Your task to perform on an android device: Go to Yahoo.com Image 0: 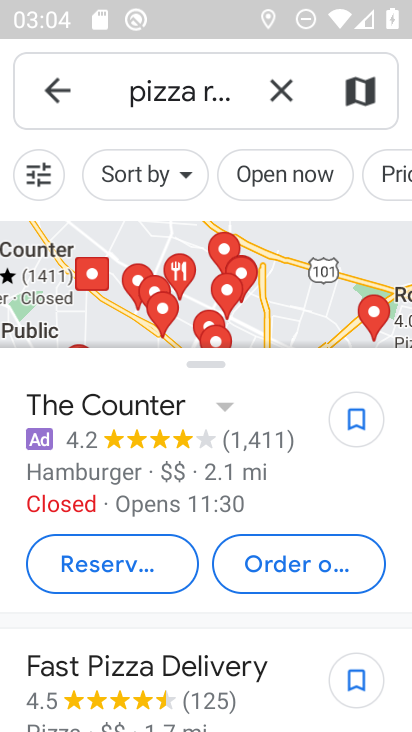
Step 0: press home button
Your task to perform on an android device: Go to Yahoo.com Image 1: 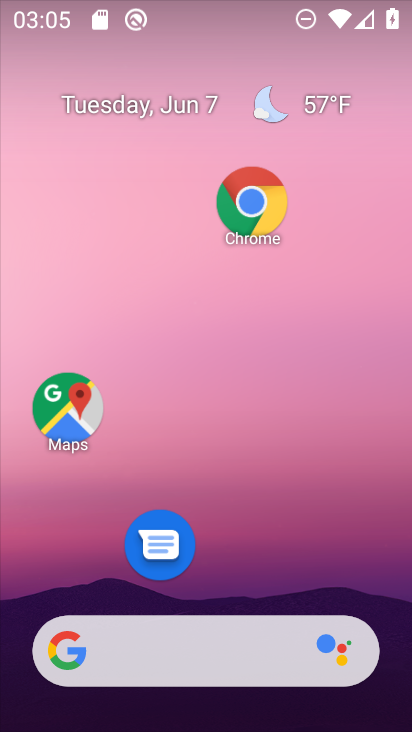
Step 1: click (234, 206)
Your task to perform on an android device: Go to Yahoo.com Image 2: 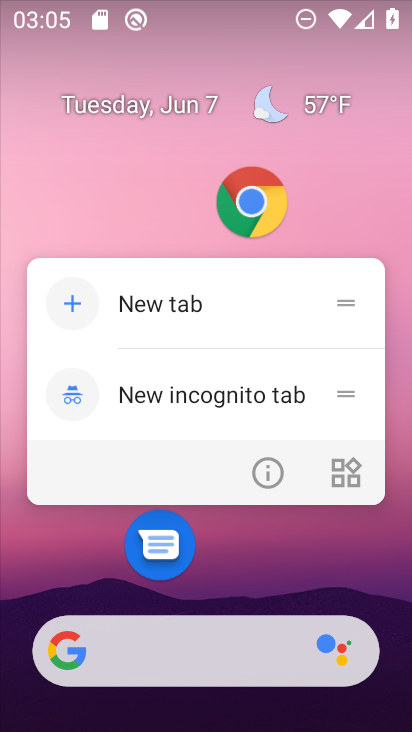
Step 2: click (274, 200)
Your task to perform on an android device: Go to Yahoo.com Image 3: 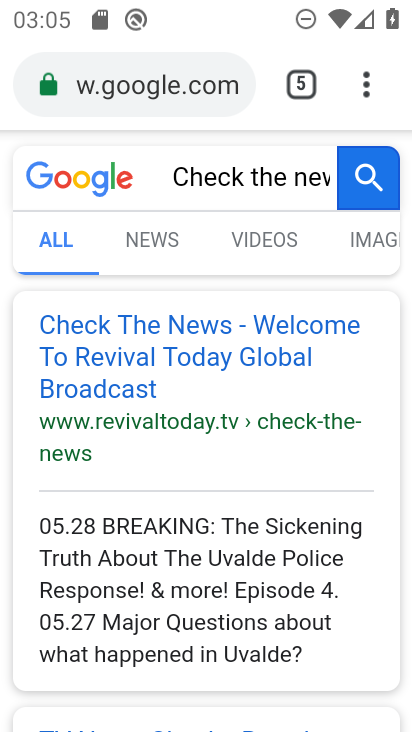
Step 3: click (367, 78)
Your task to perform on an android device: Go to Yahoo.com Image 4: 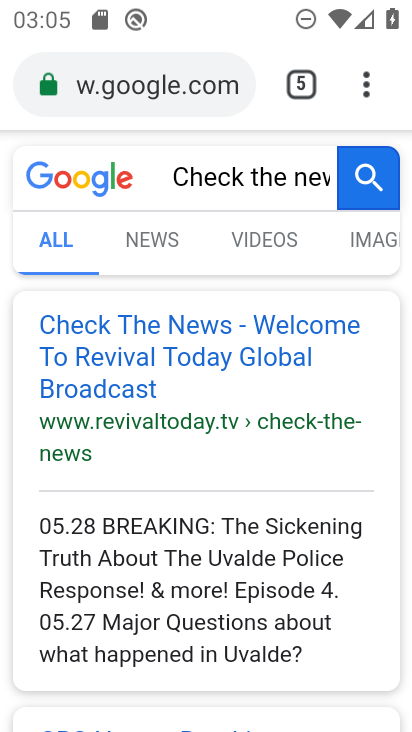
Step 4: click (364, 82)
Your task to perform on an android device: Go to Yahoo.com Image 5: 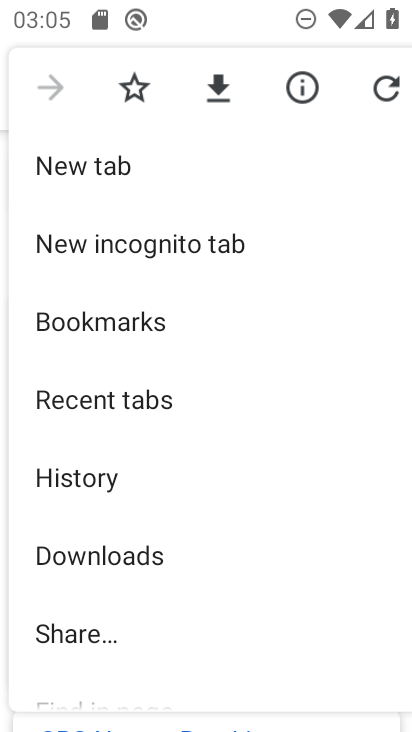
Step 5: click (53, 174)
Your task to perform on an android device: Go to Yahoo.com Image 6: 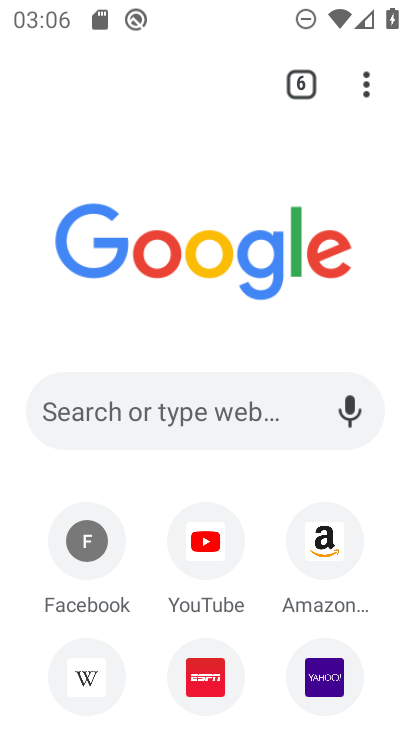
Step 6: task complete